Your task to perform on an android device: clear all cookies in the chrome app Image 0: 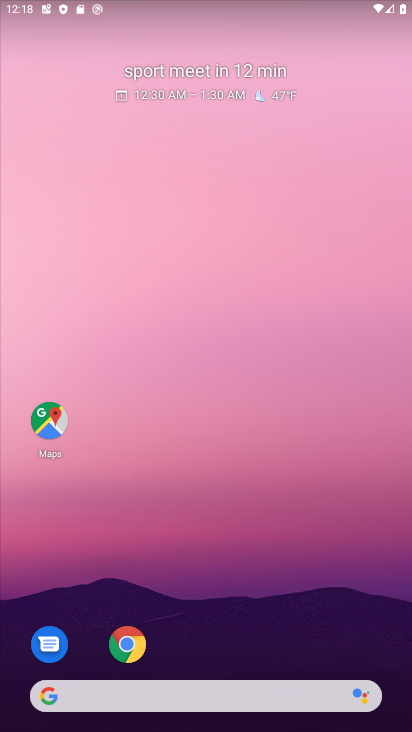
Step 0: click (129, 642)
Your task to perform on an android device: clear all cookies in the chrome app Image 1: 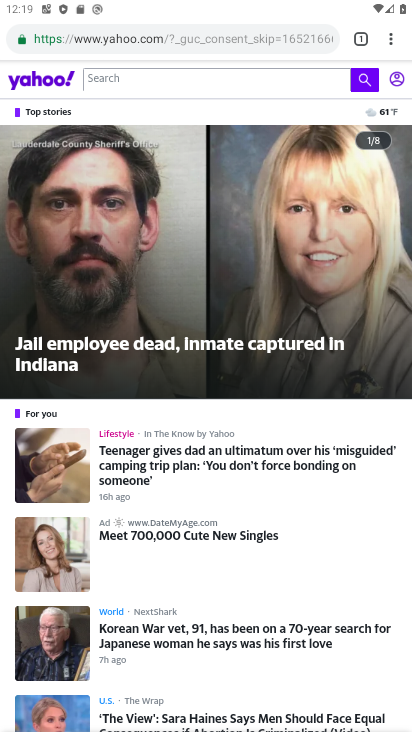
Step 1: task complete